Your task to perform on an android device: Go to settings Image 0: 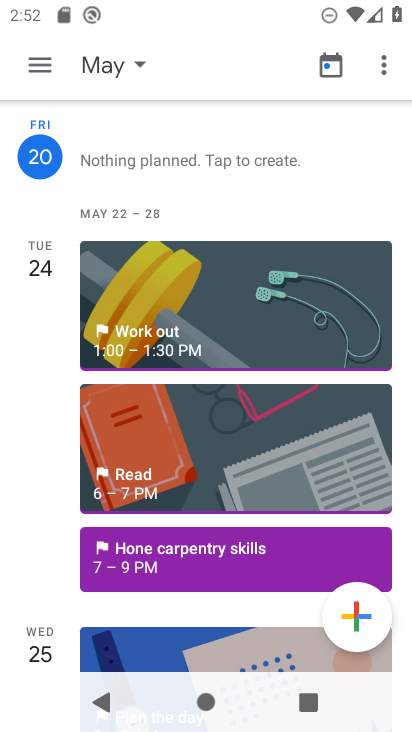
Step 0: press back button
Your task to perform on an android device: Go to settings Image 1: 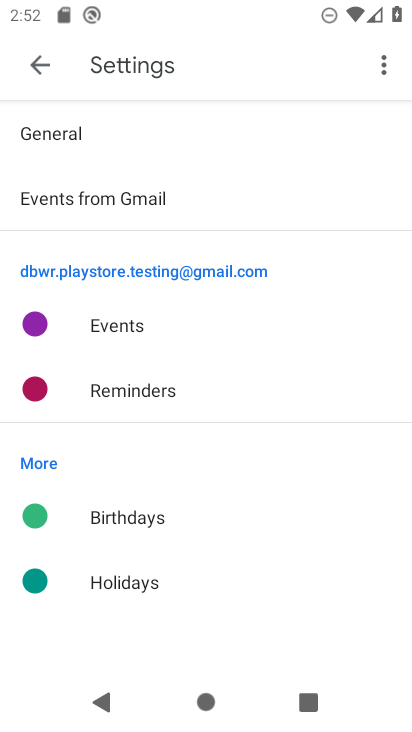
Step 1: press back button
Your task to perform on an android device: Go to settings Image 2: 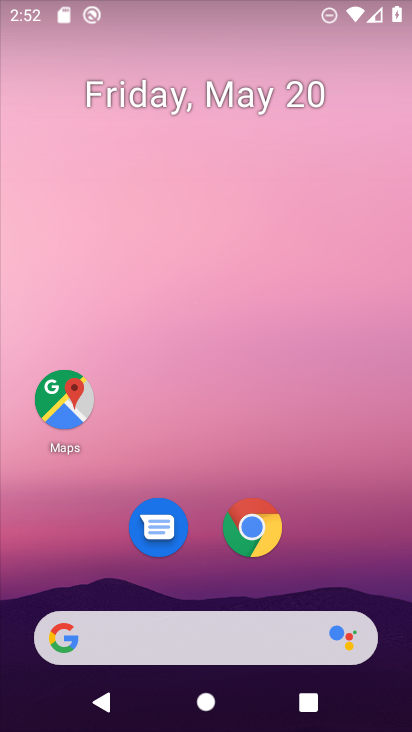
Step 2: drag from (143, 608) to (294, 55)
Your task to perform on an android device: Go to settings Image 3: 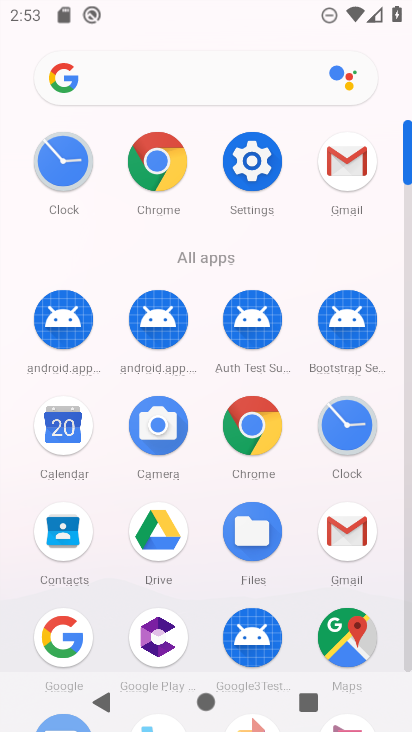
Step 3: click (243, 158)
Your task to perform on an android device: Go to settings Image 4: 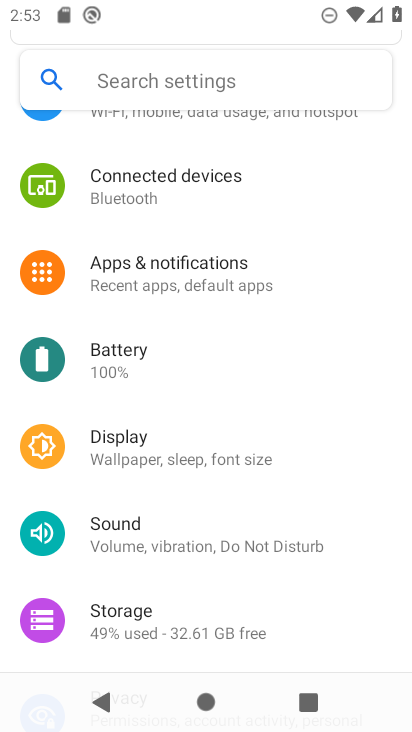
Step 4: task complete